Your task to perform on an android device: change the clock display to show seconds Image 0: 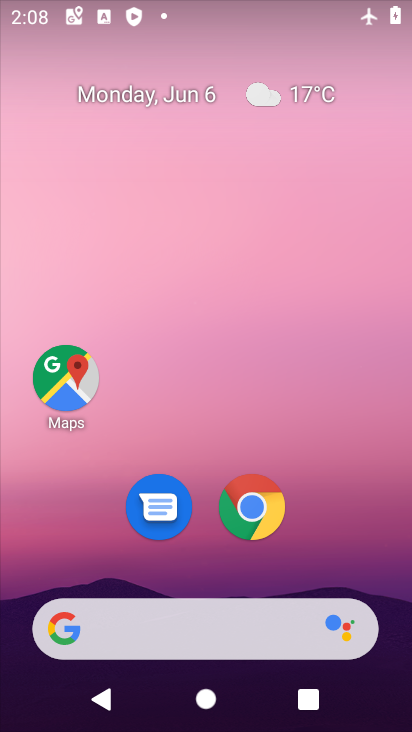
Step 0: drag from (225, 403) to (223, 6)
Your task to perform on an android device: change the clock display to show seconds Image 1: 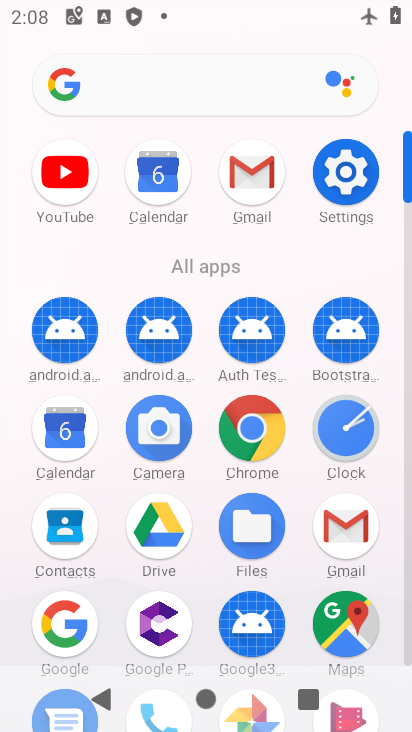
Step 1: click (331, 411)
Your task to perform on an android device: change the clock display to show seconds Image 2: 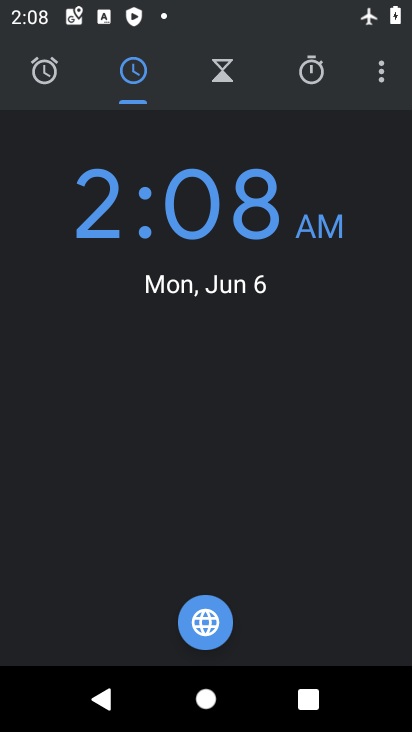
Step 2: click (382, 90)
Your task to perform on an android device: change the clock display to show seconds Image 3: 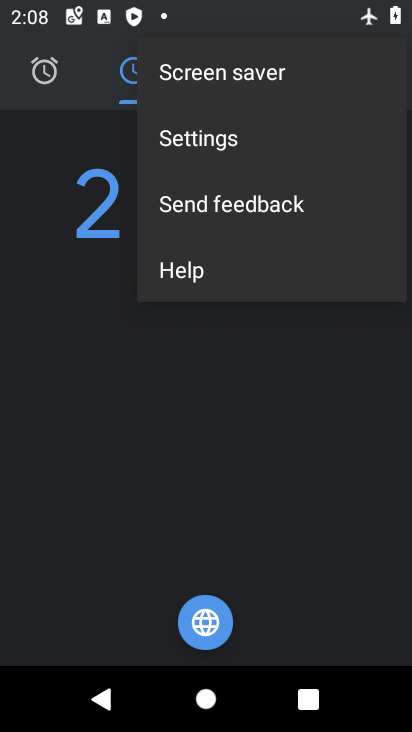
Step 3: click (283, 141)
Your task to perform on an android device: change the clock display to show seconds Image 4: 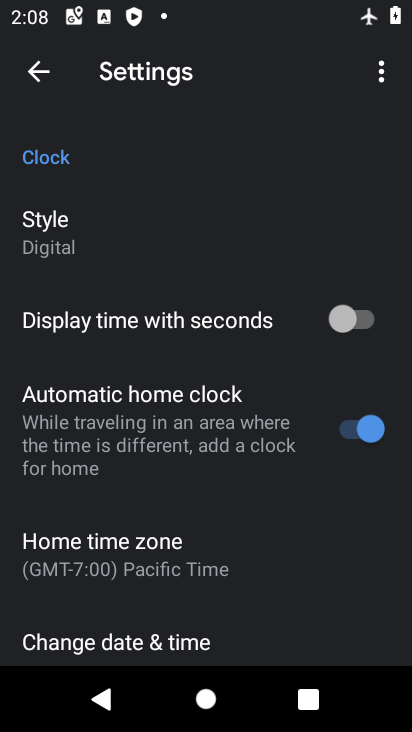
Step 4: click (364, 314)
Your task to perform on an android device: change the clock display to show seconds Image 5: 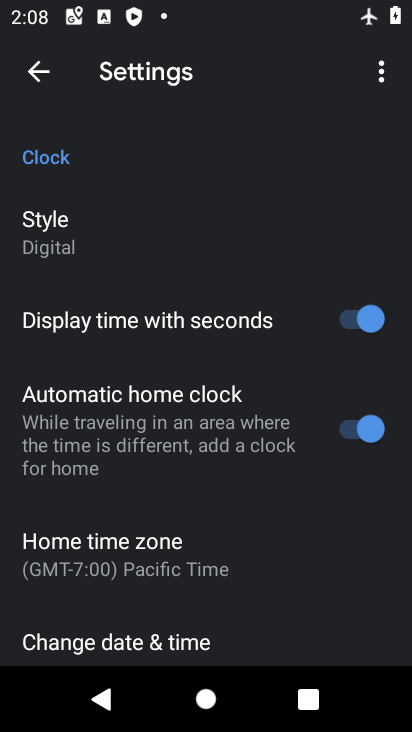
Step 5: task complete